Your task to perform on an android device: turn off location history Image 0: 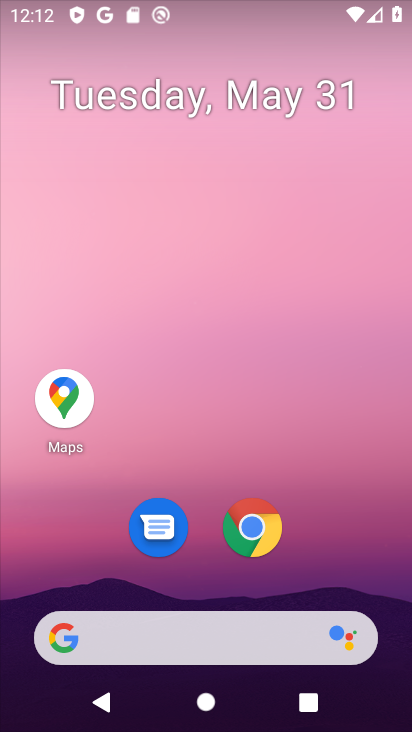
Step 0: drag from (252, 676) to (204, 111)
Your task to perform on an android device: turn off location history Image 1: 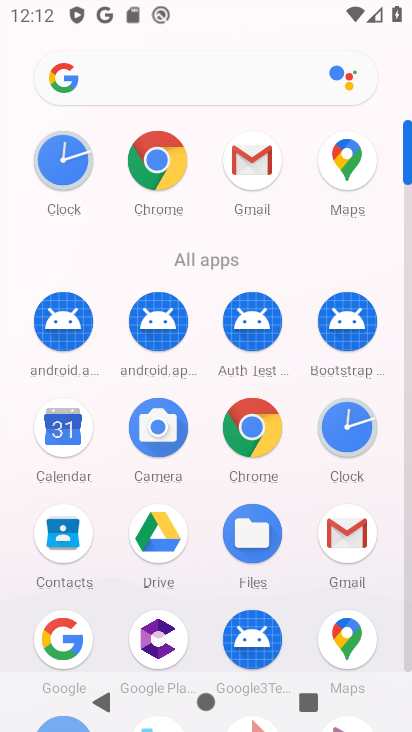
Step 1: drag from (311, 540) to (251, 345)
Your task to perform on an android device: turn off location history Image 2: 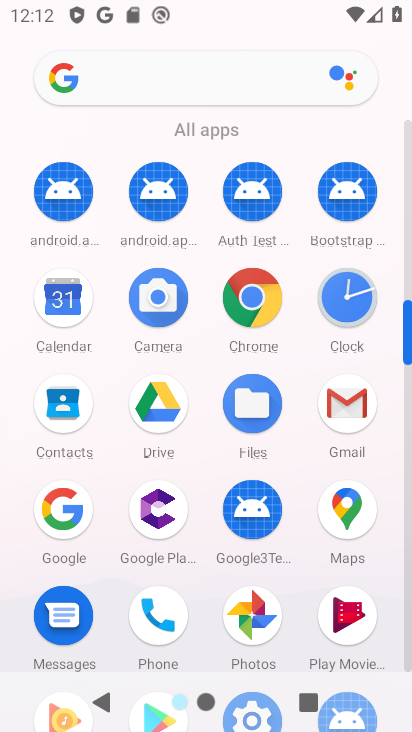
Step 2: drag from (298, 624) to (296, 285)
Your task to perform on an android device: turn off location history Image 3: 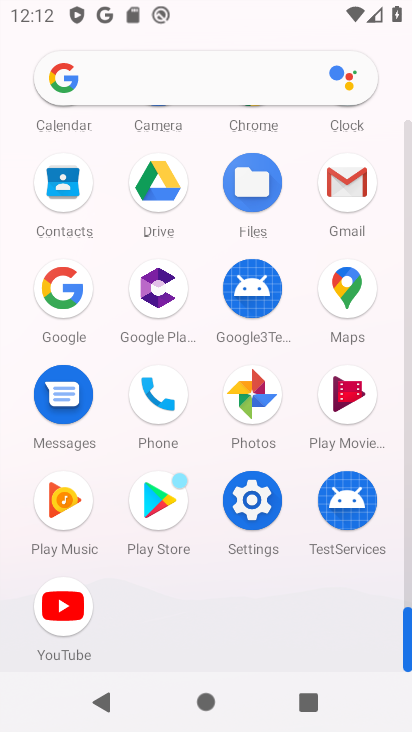
Step 3: drag from (196, 221) to (217, 489)
Your task to perform on an android device: turn off location history Image 4: 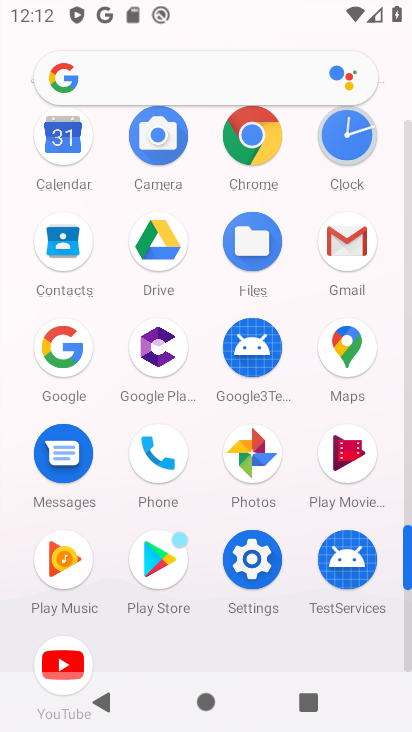
Step 4: drag from (208, 273) to (208, 440)
Your task to perform on an android device: turn off location history Image 5: 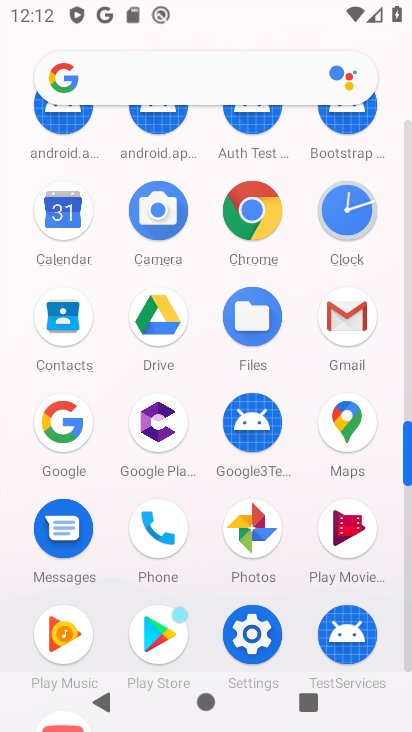
Step 5: drag from (205, 294) to (216, 537)
Your task to perform on an android device: turn off location history Image 6: 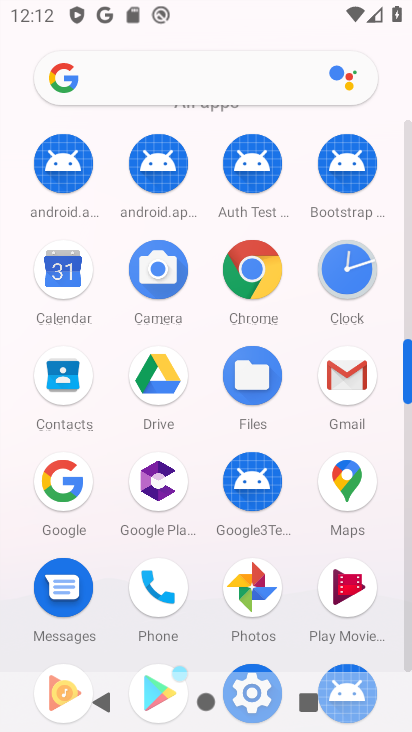
Step 6: drag from (205, 367) to (232, 581)
Your task to perform on an android device: turn off location history Image 7: 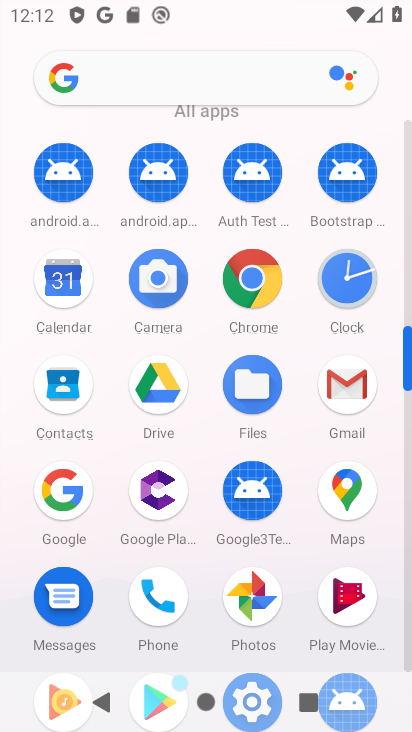
Step 7: drag from (189, 339) to (175, 567)
Your task to perform on an android device: turn off location history Image 8: 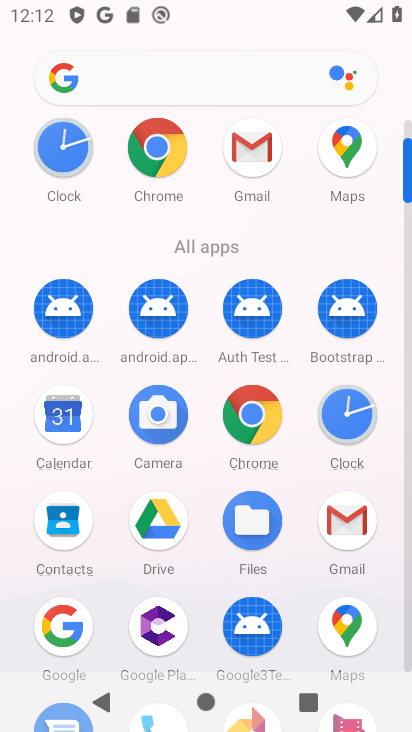
Step 8: drag from (216, 497) to (229, 327)
Your task to perform on an android device: turn off location history Image 9: 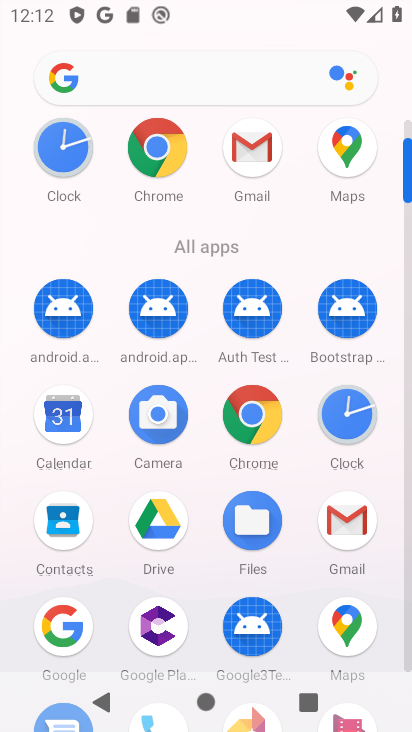
Step 9: drag from (193, 484) to (205, 190)
Your task to perform on an android device: turn off location history Image 10: 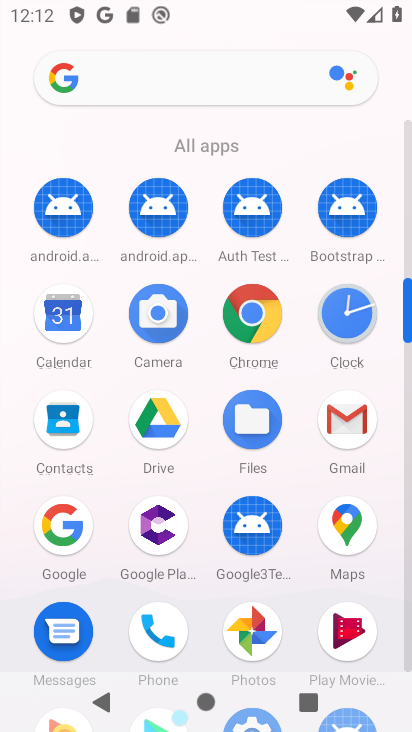
Step 10: drag from (168, 392) to (166, 301)
Your task to perform on an android device: turn off location history Image 11: 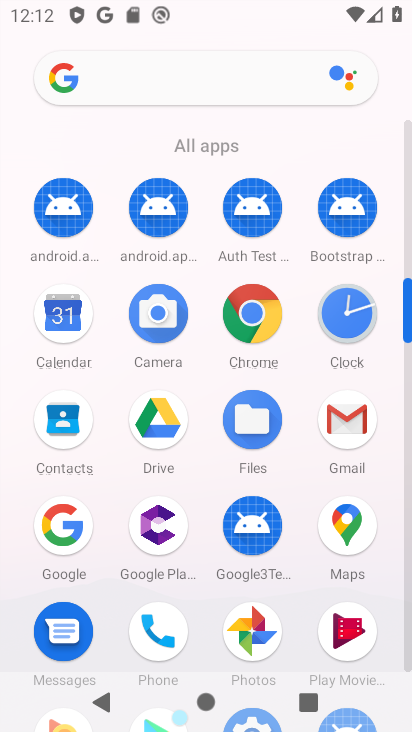
Step 11: drag from (200, 455) to (195, 202)
Your task to perform on an android device: turn off location history Image 12: 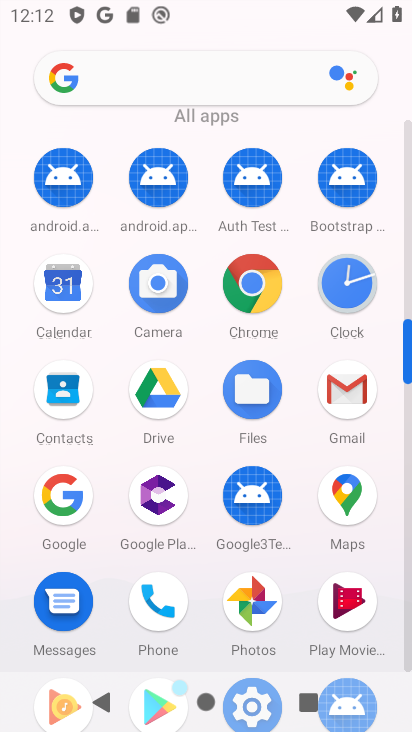
Step 12: drag from (239, 489) to (219, 309)
Your task to perform on an android device: turn off location history Image 13: 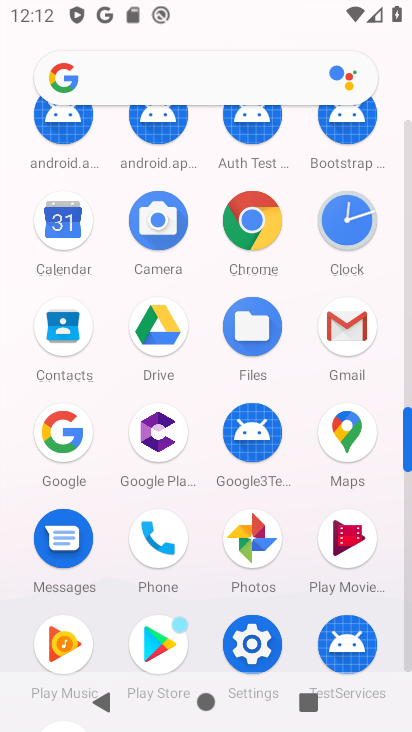
Step 13: drag from (189, 480) to (222, 318)
Your task to perform on an android device: turn off location history Image 14: 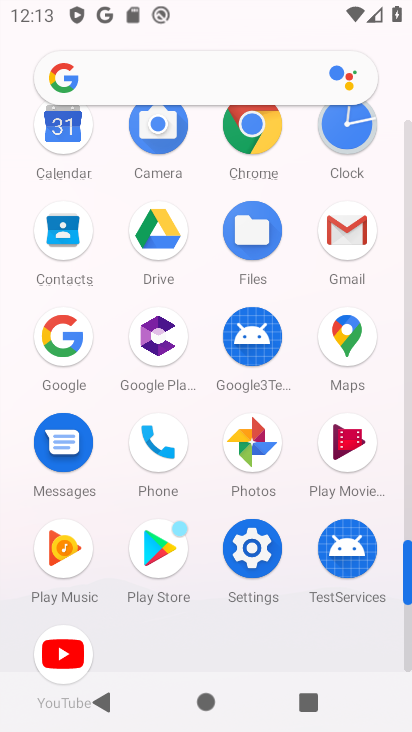
Step 14: drag from (193, 533) to (191, 198)
Your task to perform on an android device: turn off location history Image 15: 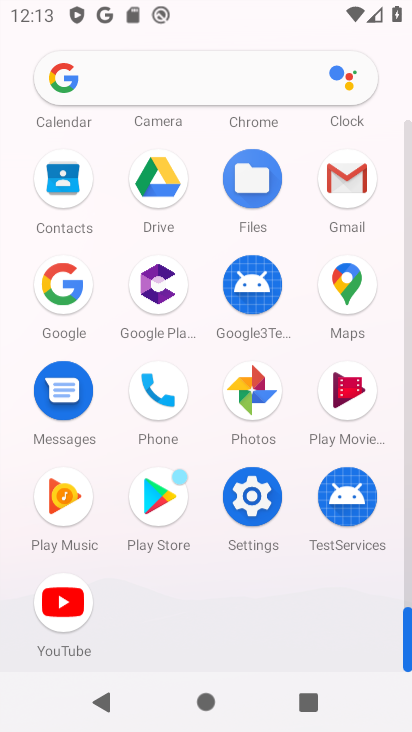
Step 15: drag from (200, 230) to (197, 526)
Your task to perform on an android device: turn off location history Image 16: 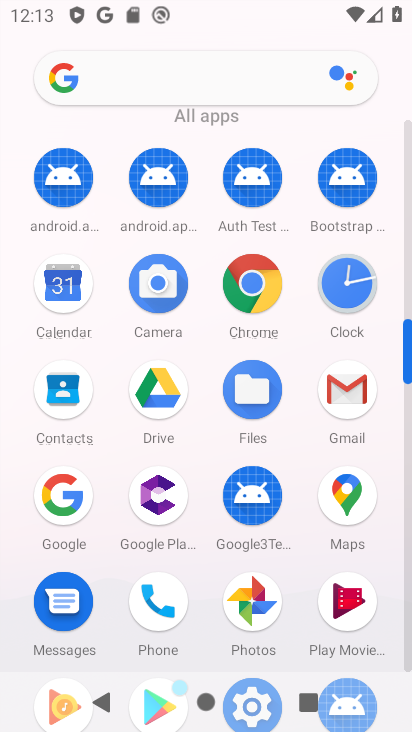
Step 16: drag from (207, 503) to (213, 173)
Your task to perform on an android device: turn off location history Image 17: 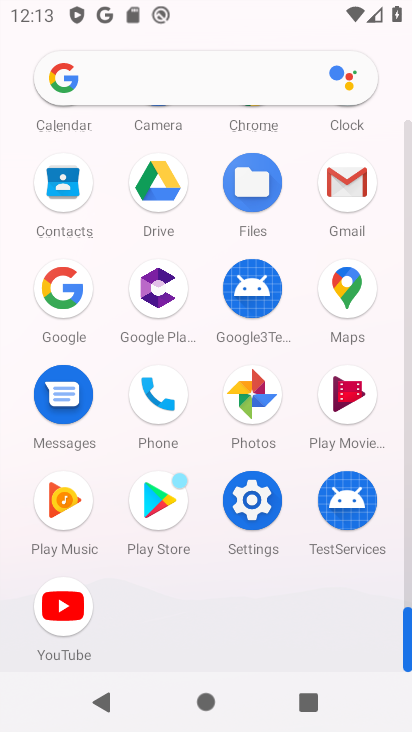
Step 17: click (267, 497)
Your task to perform on an android device: turn off location history Image 18: 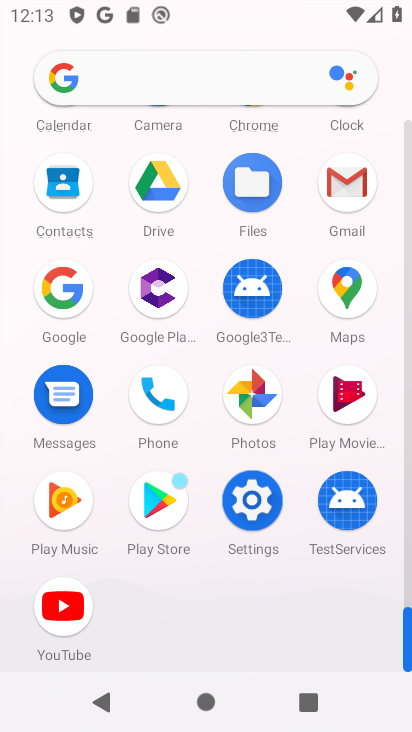
Step 18: click (266, 498)
Your task to perform on an android device: turn off location history Image 19: 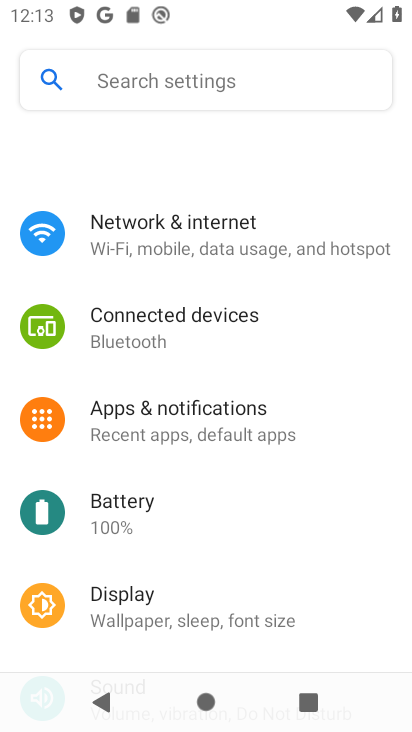
Step 19: click (256, 500)
Your task to perform on an android device: turn off location history Image 20: 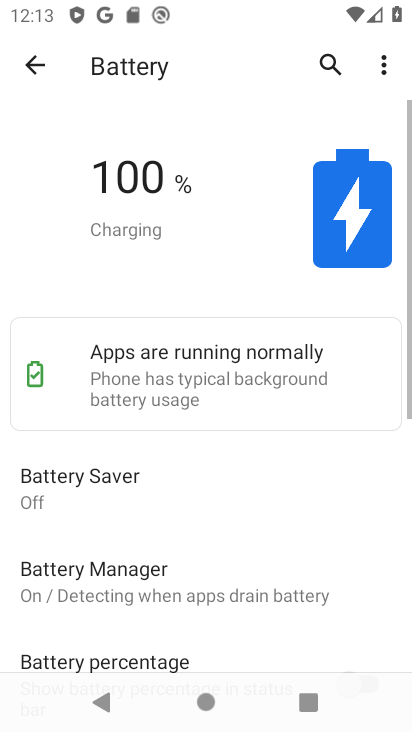
Step 20: click (27, 65)
Your task to perform on an android device: turn off location history Image 21: 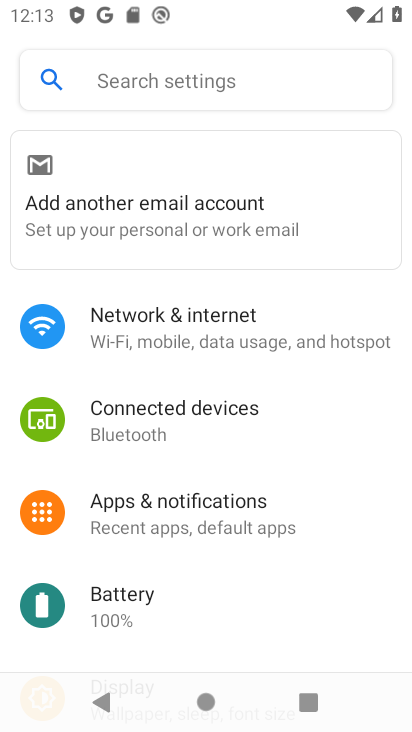
Step 21: drag from (147, 533) to (107, 267)
Your task to perform on an android device: turn off location history Image 22: 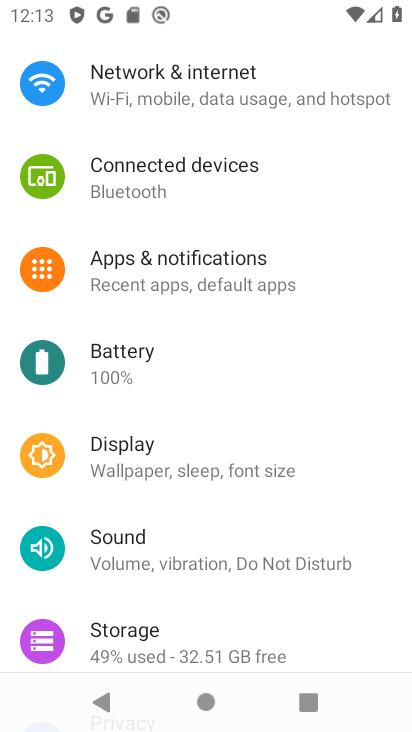
Step 22: drag from (198, 549) to (207, 300)
Your task to perform on an android device: turn off location history Image 23: 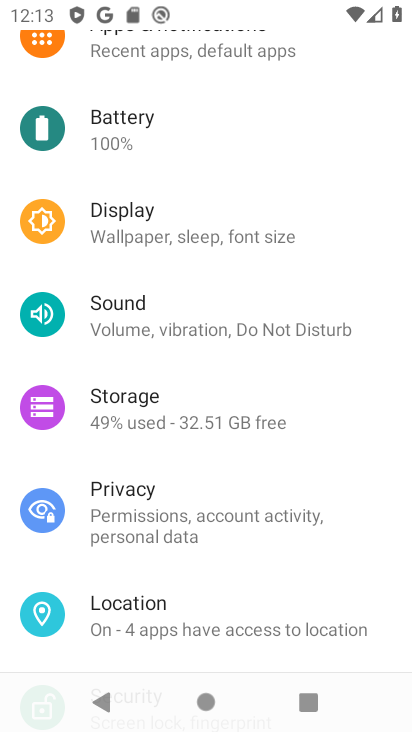
Step 23: drag from (176, 560) to (147, 179)
Your task to perform on an android device: turn off location history Image 24: 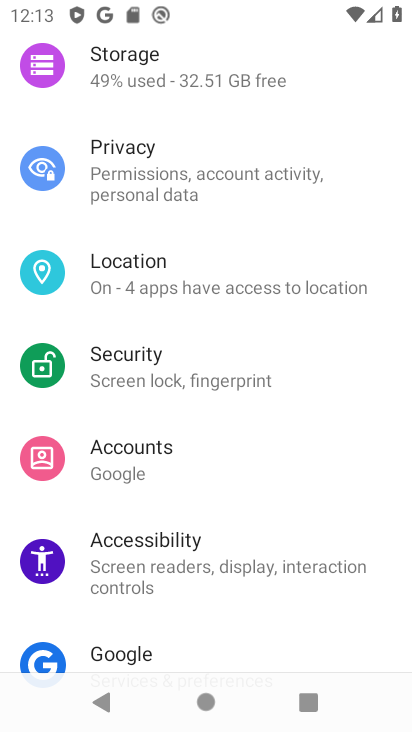
Step 24: drag from (191, 503) to (103, 173)
Your task to perform on an android device: turn off location history Image 25: 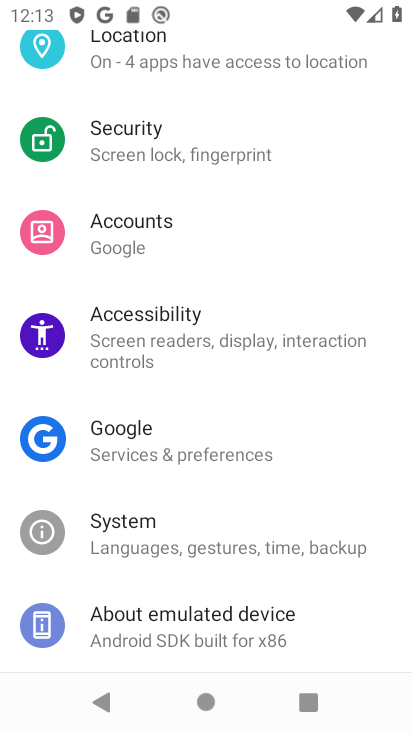
Step 25: click (134, 41)
Your task to perform on an android device: turn off location history Image 26: 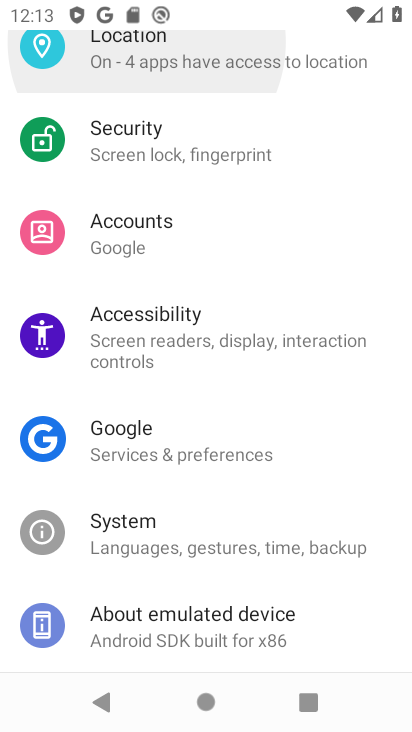
Step 26: click (136, 46)
Your task to perform on an android device: turn off location history Image 27: 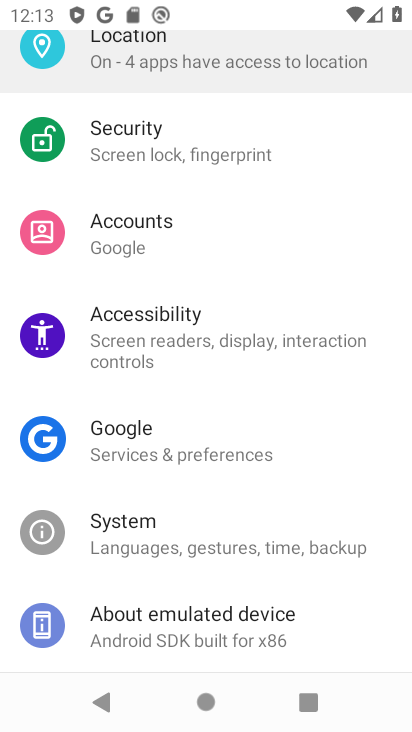
Step 27: click (137, 46)
Your task to perform on an android device: turn off location history Image 28: 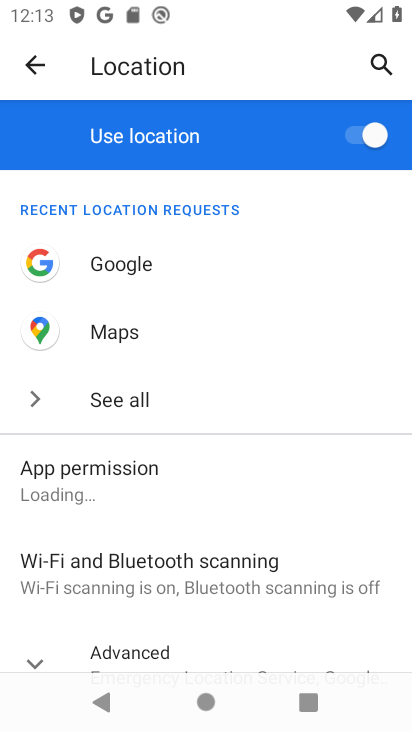
Step 28: click (45, 482)
Your task to perform on an android device: turn off location history Image 29: 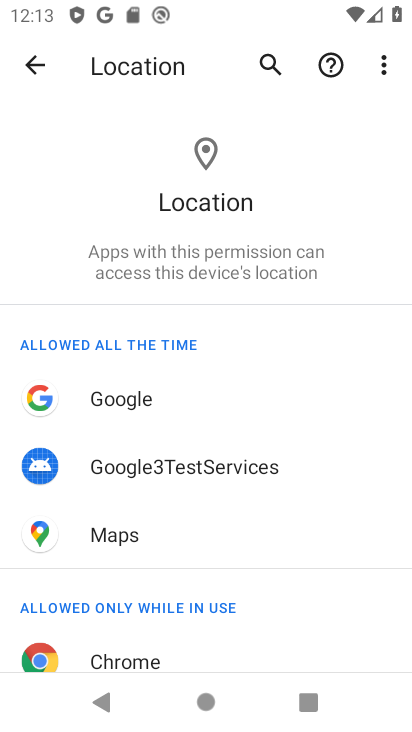
Step 29: drag from (136, 455) to (118, 265)
Your task to perform on an android device: turn off location history Image 30: 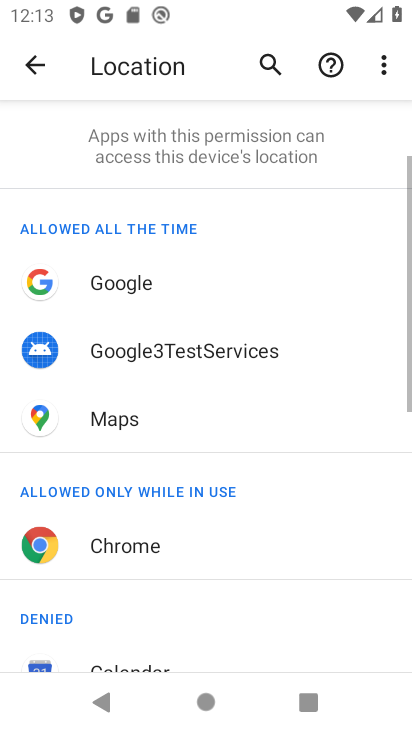
Step 30: drag from (176, 457) to (143, 258)
Your task to perform on an android device: turn off location history Image 31: 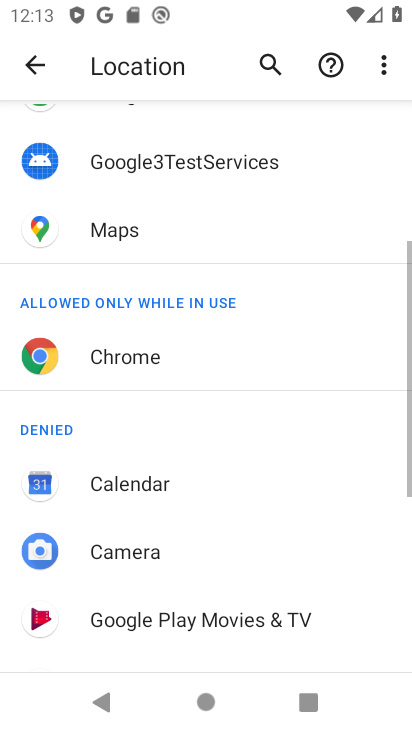
Step 31: drag from (178, 457) to (170, 203)
Your task to perform on an android device: turn off location history Image 32: 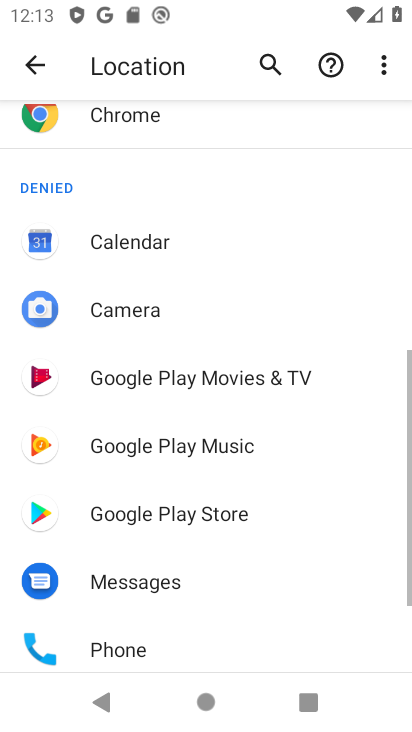
Step 32: drag from (186, 396) to (236, 175)
Your task to perform on an android device: turn off location history Image 33: 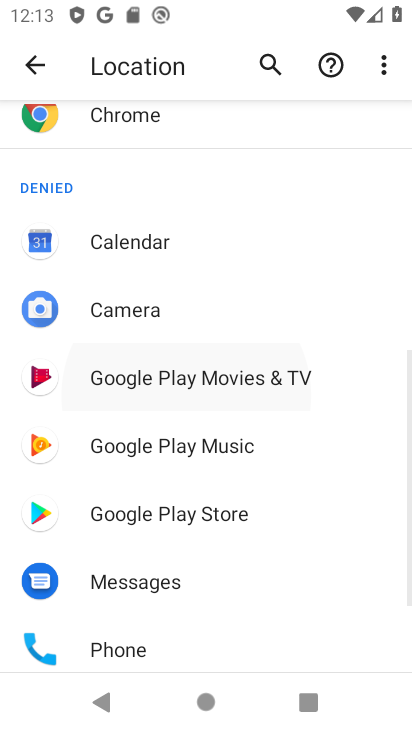
Step 33: drag from (229, 475) to (260, 221)
Your task to perform on an android device: turn off location history Image 34: 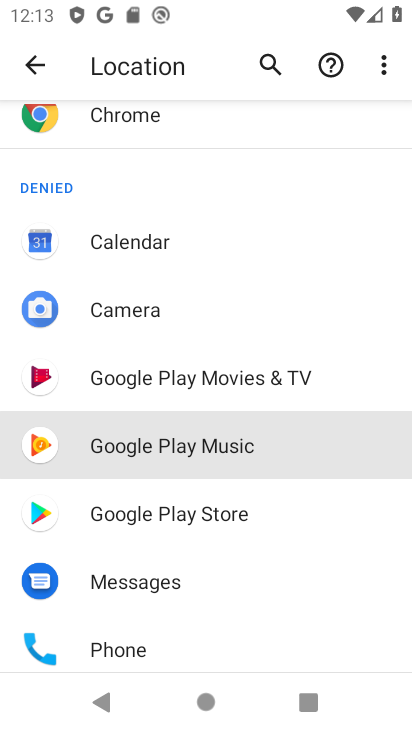
Step 34: drag from (261, 490) to (258, 278)
Your task to perform on an android device: turn off location history Image 35: 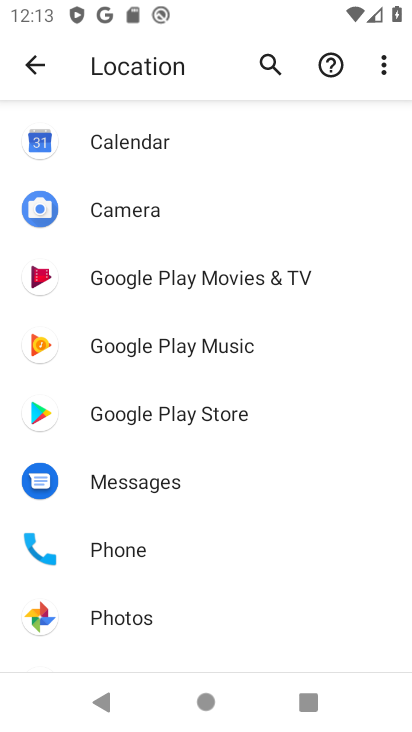
Step 35: click (44, 68)
Your task to perform on an android device: turn off location history Image 36: 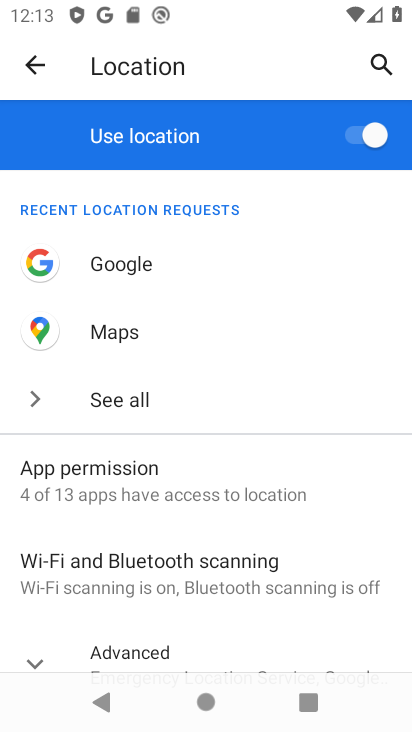
Step 36: click (27, 63)
Your task to perform on an android device: turn off location history Image 37: 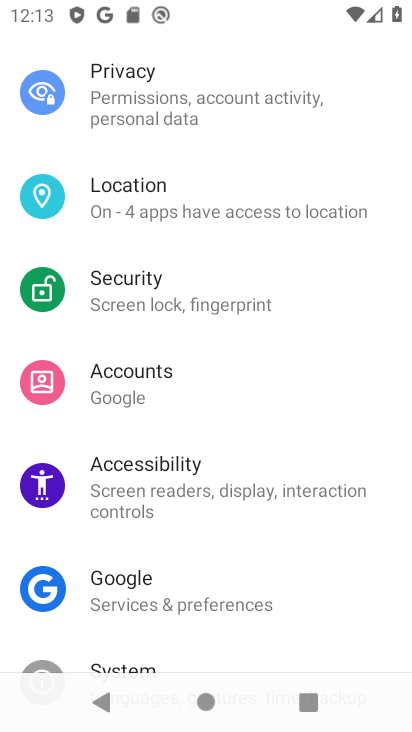
Step 37: click (136, 194)
Your task to perform on an android device: turn off location history Image 38: 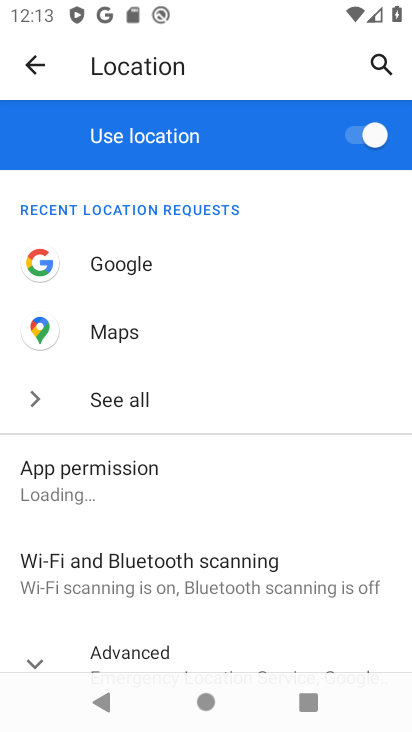
Step 38: click (52, 472)
Your task to perform on an android device: turn off location history Image 39: 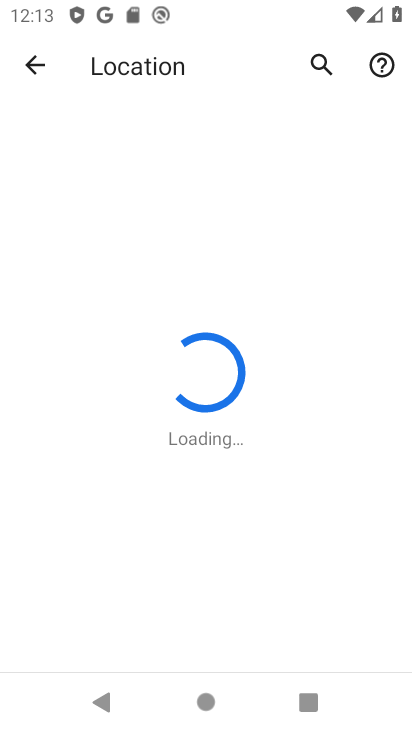
Step 39: click (35, 70)
Your task to perform on an android device: turn off location history Image 40: 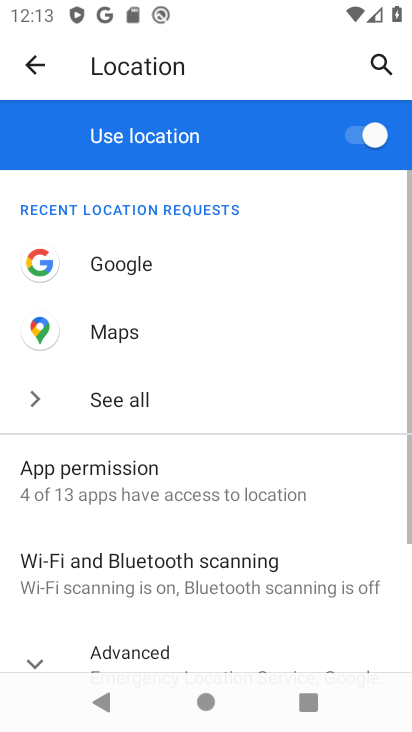
Step 40: drag from (145, 530) to (172, 152)
Your task to perform on an android device: turn off location history Image 41: 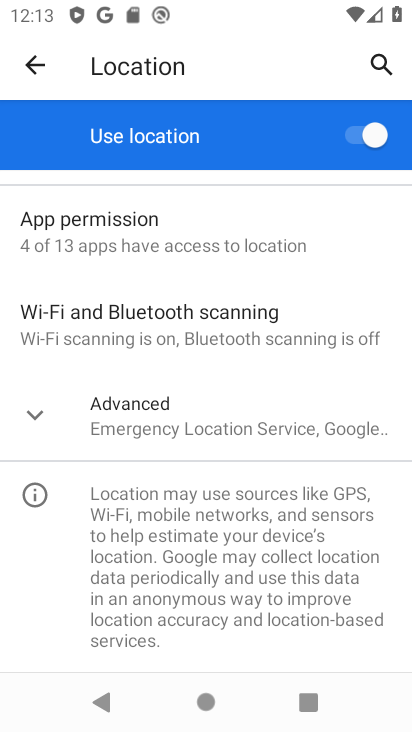
Step 41: click (180, 426)
Your task to perform on an android device: turn off location history Image 42: 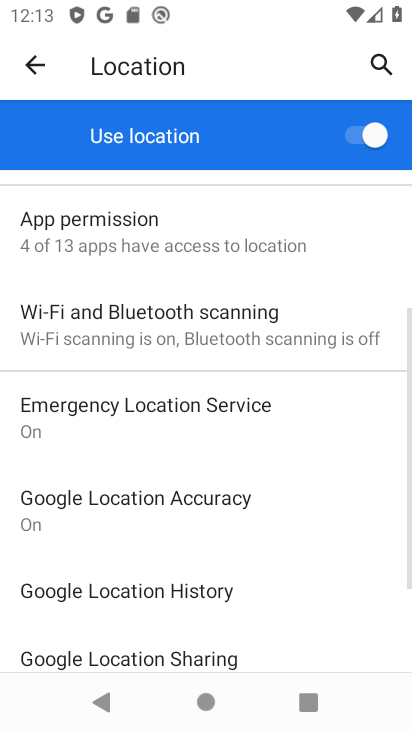
Step 42: click (168, 589)
Your task to perform on an android device: turn off location history Image 43: 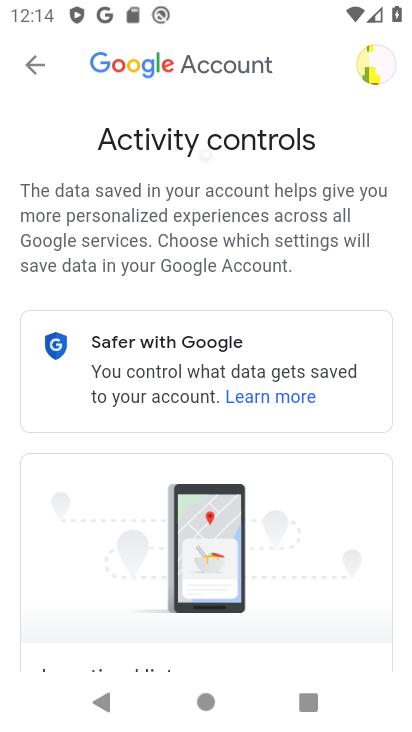
Step 43: task complete